Your task to perform on an android device: turn off javascript in the chrome app Image 0: 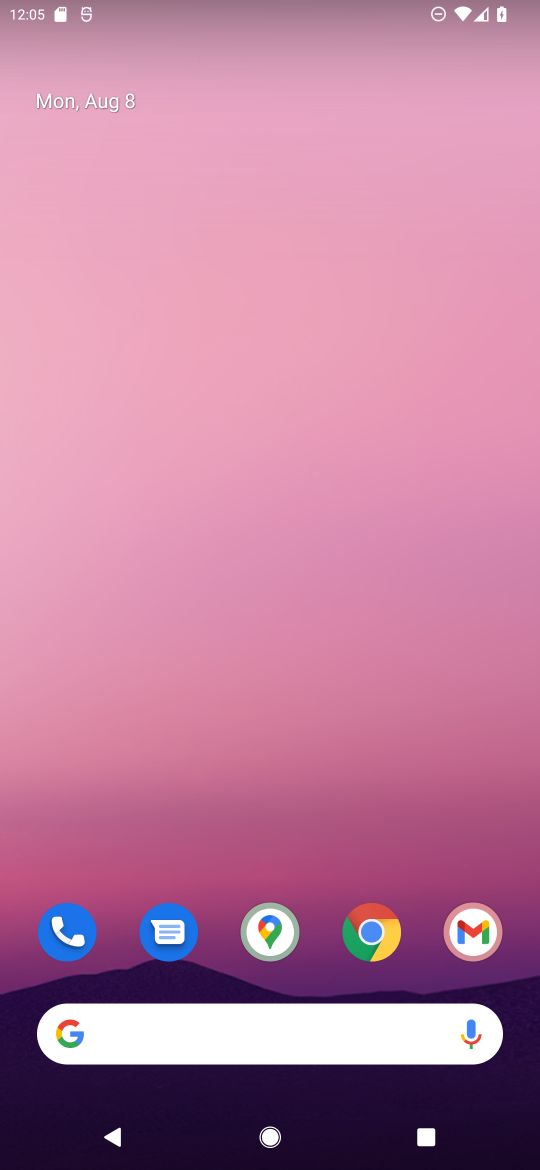
Step 0: click (371, 936)
Your task to perform on an android device: turn off javascript in the chrome app Image 1: 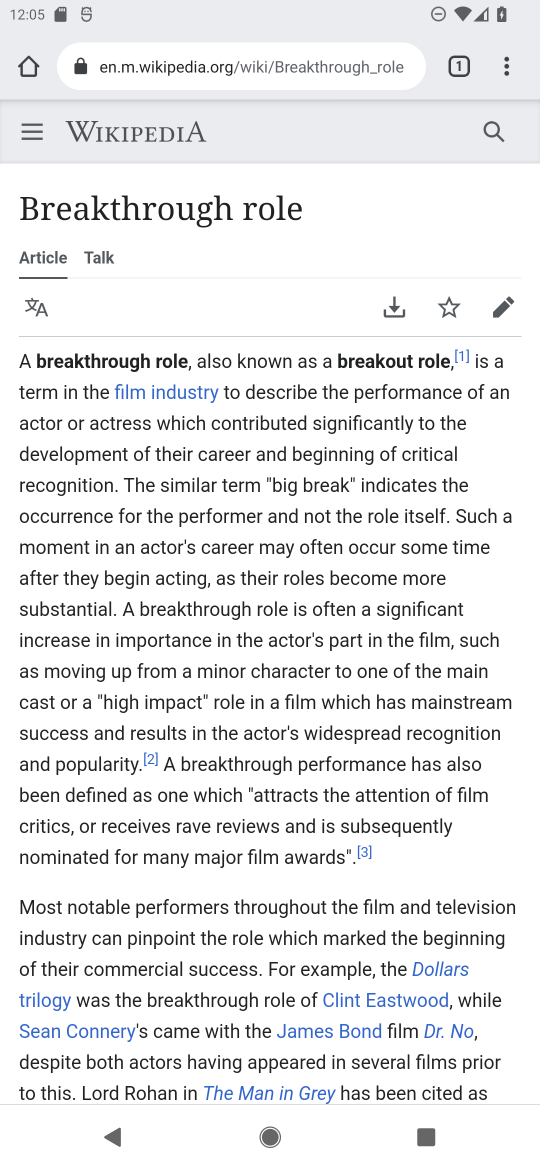
Step 1: click (516, 67)
Your task to perform on an android device: turn off javascript in the chrome app Image 2: 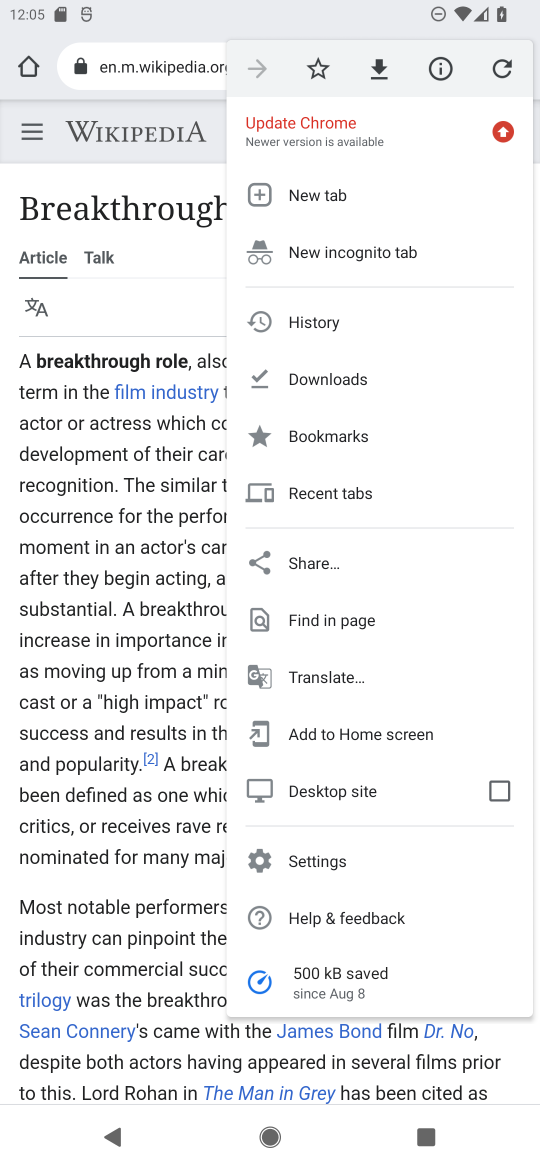
Step 2: click (512, 77)
Your task to perform on an android device: turn off javascript in the chrome app Image 3: 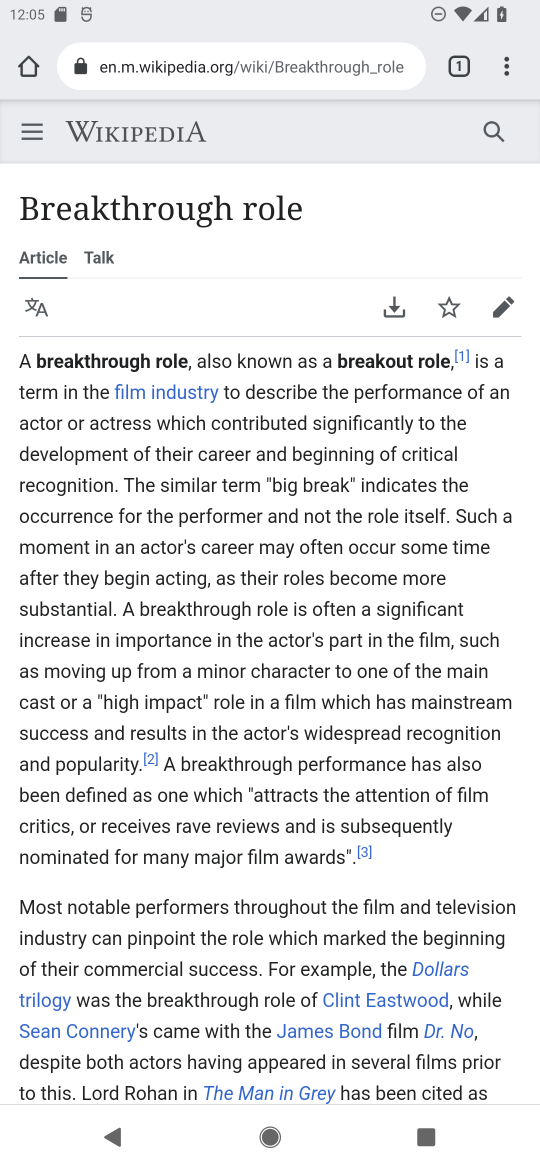
Step 3: click (324, 847)
Your task to perform on an android device: turn off javascript in the chrome app Image 4: 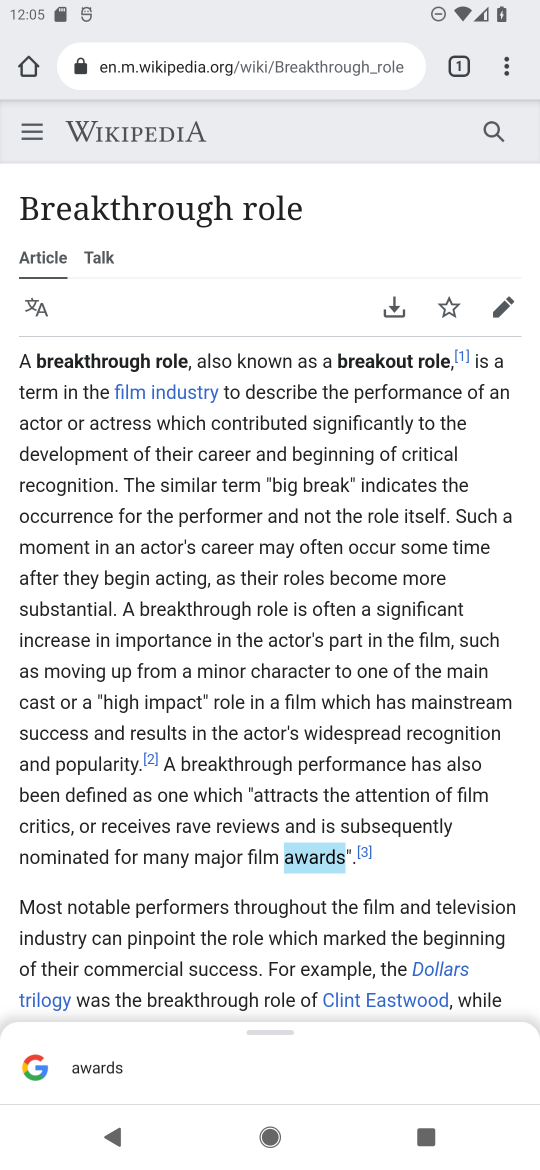
Step 4: click (501, 81)
Your task to perform on an android device: turn off javascript in the chrome app Image 5: 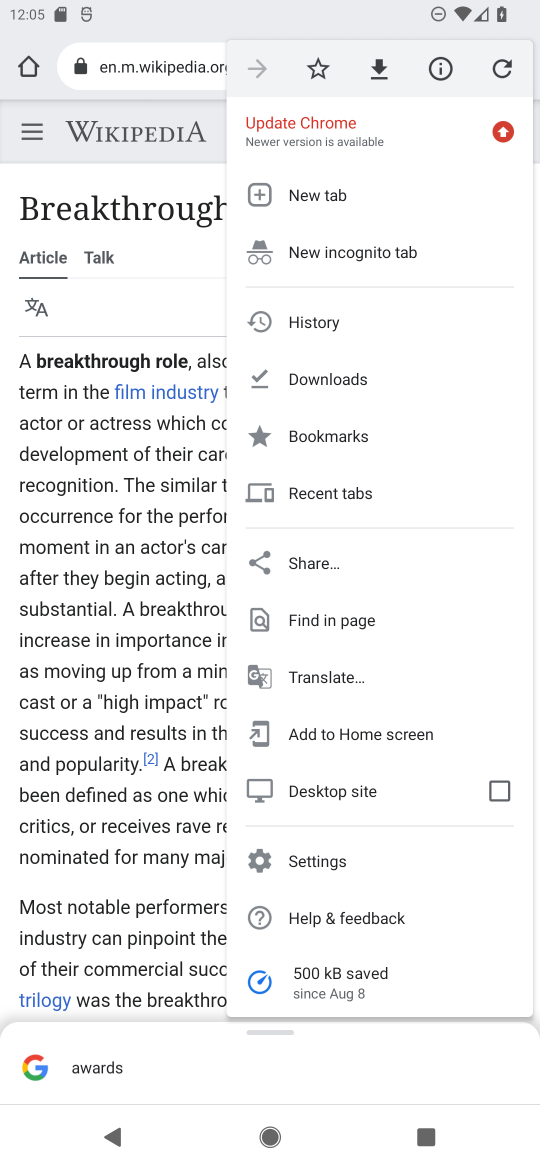
Step 5: click (378, 876)
Your task to perform on an android device: turn off javascript in the chrome app Image 6: 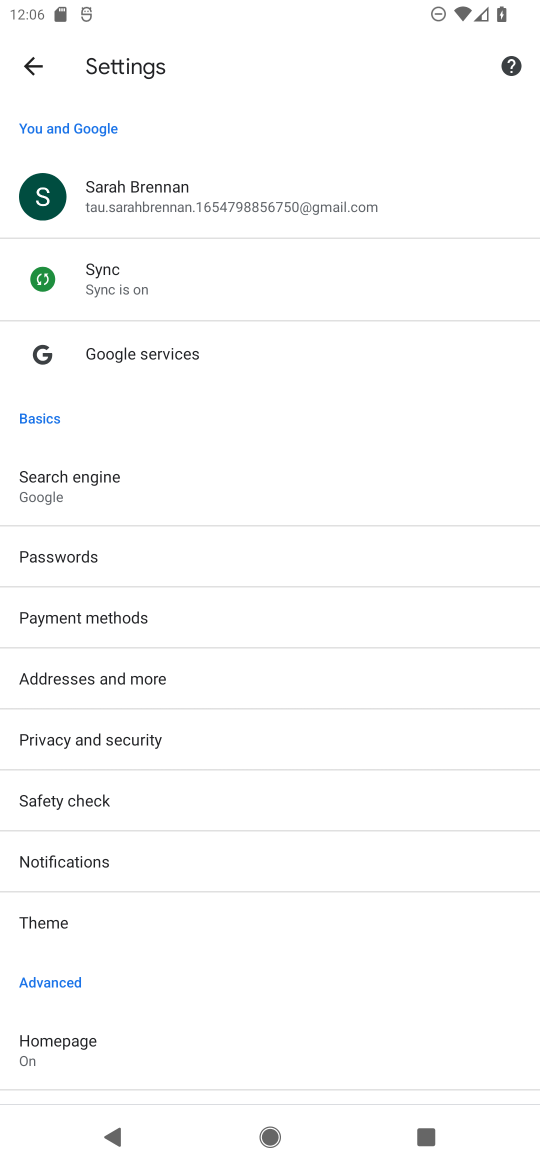
Step 6: drag from (188, 845) to (225, 319)
Your task to perform on an android device: turn off javascript in the chrome app Image 7: 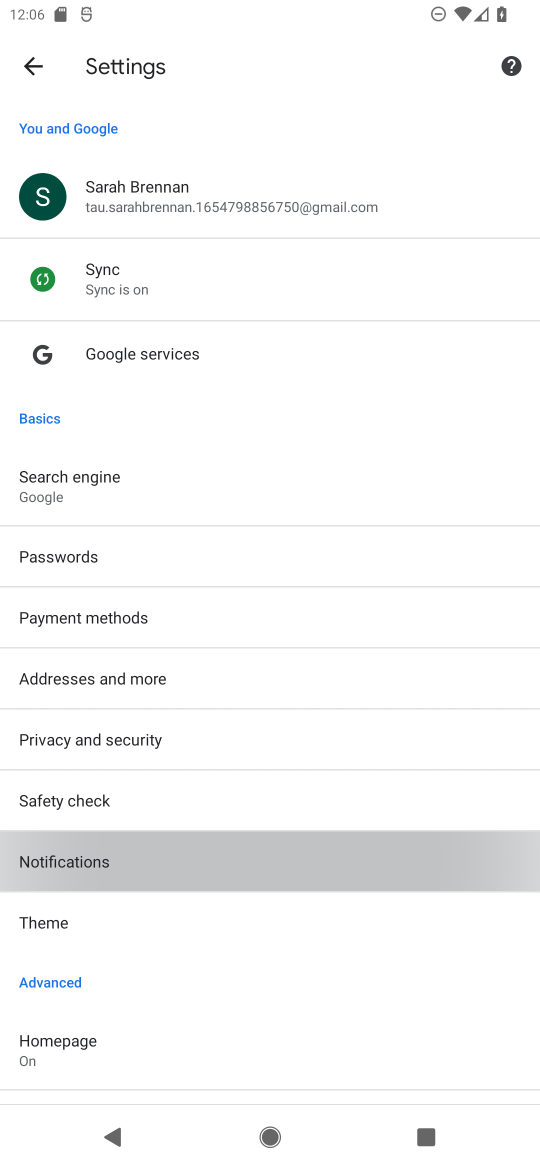
Step 7: drag from (311, 802) to (341, 32)
Your task to perform on an android device: turn off javascript in the chrome app Image 8: 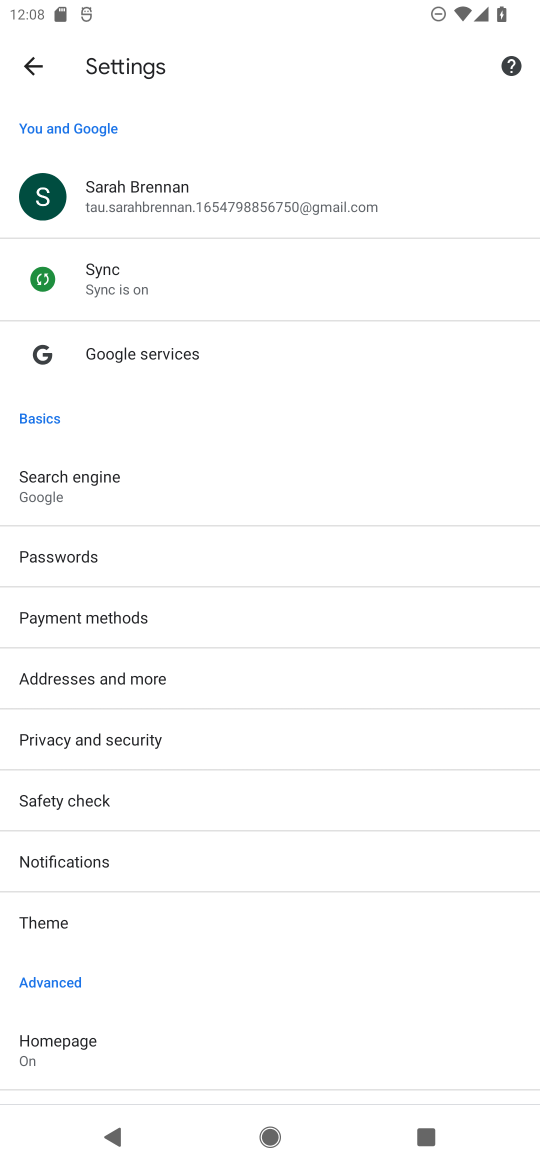
Step 8: drag from (107, 1051) to (185, 331)
Your task to perform on an android device: turn off javascript in the chrome app Image 9: 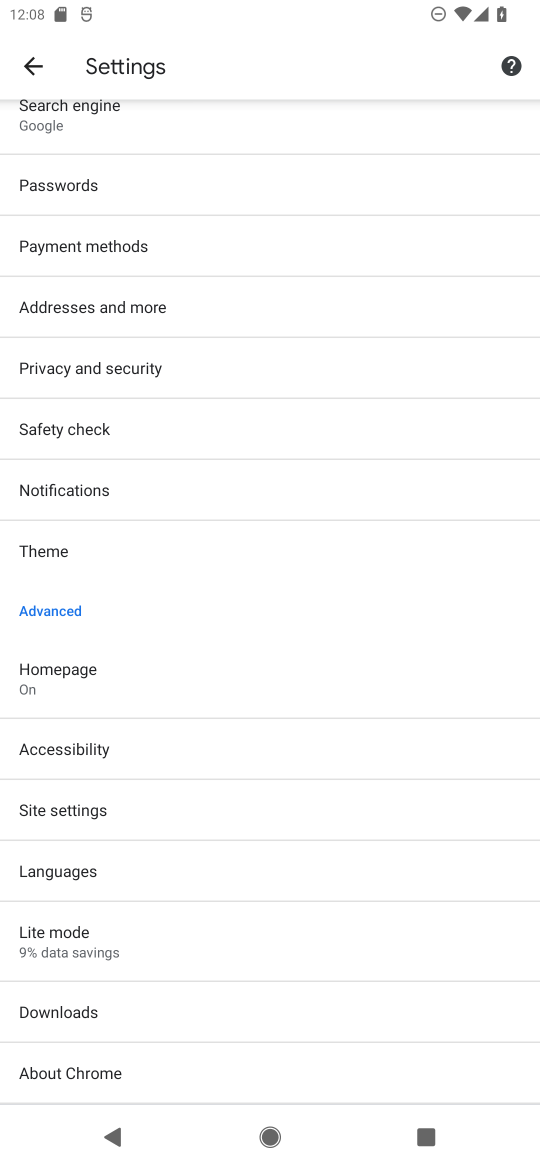
Step 9: click (121, 821)
Your task to perform on an android device: turn off javascript in the chrome app Image 10: 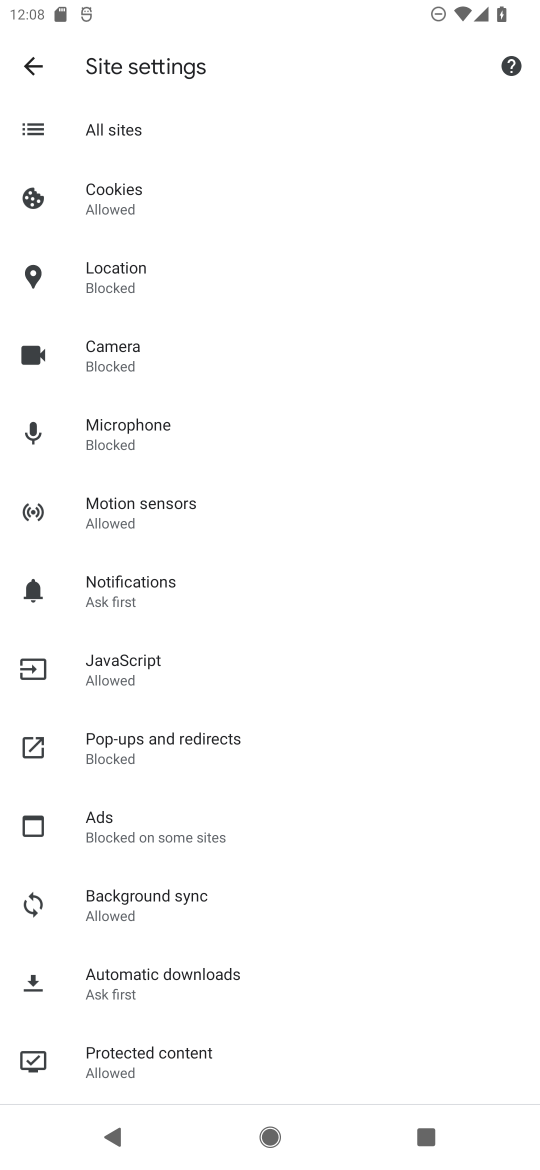
Step 10: click (138, 667)
Your task to perform on an android device: turn off javascript in the chrome app Image 11: 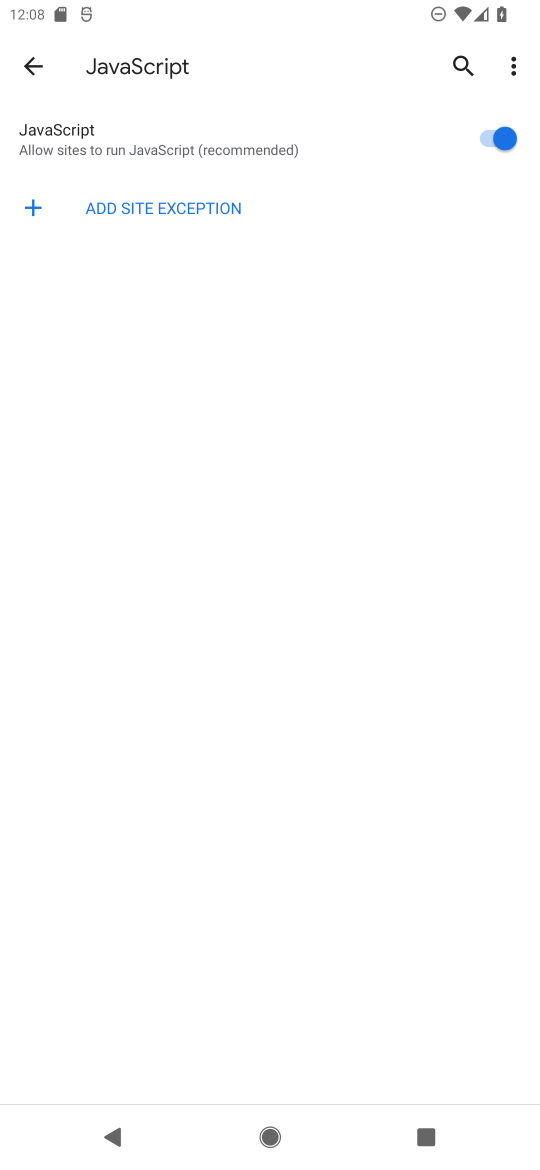
Step 11: click (490, 132)
Your task to perform on an android device: turn off javascript in the chrome app Image 12: 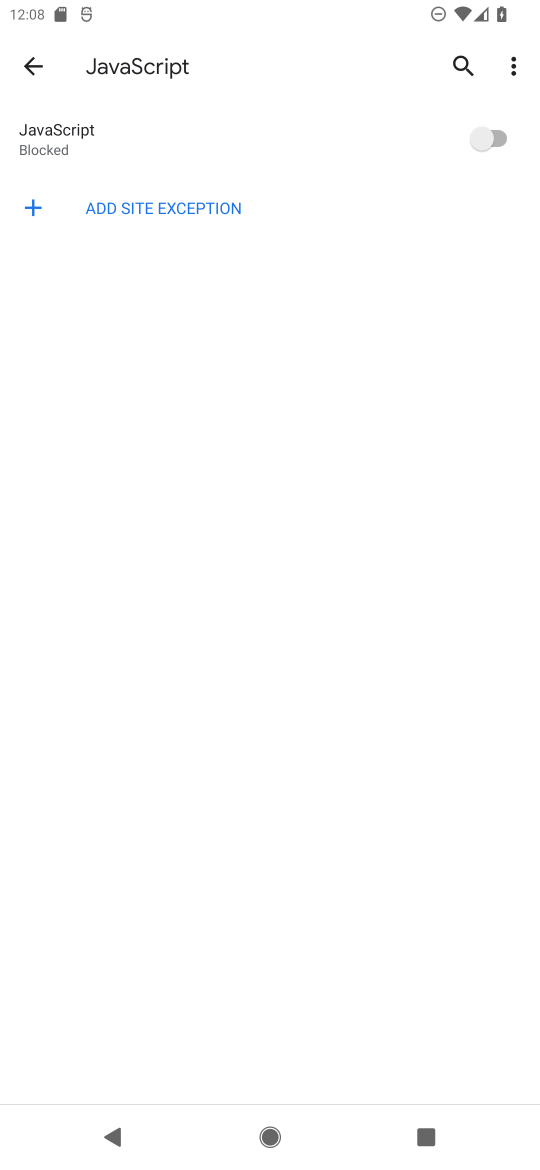
Step 12: task complete